Your task to perform on an android device: check battery use Image 0: 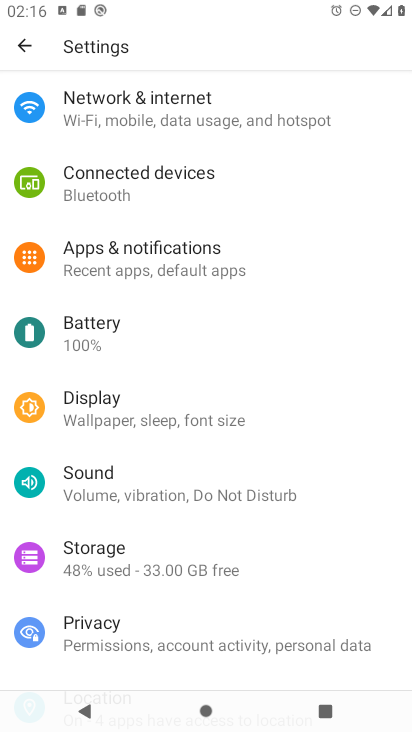
Step 0: click (69, 323)
Your task to perform on an android device: check battery use Image 1: 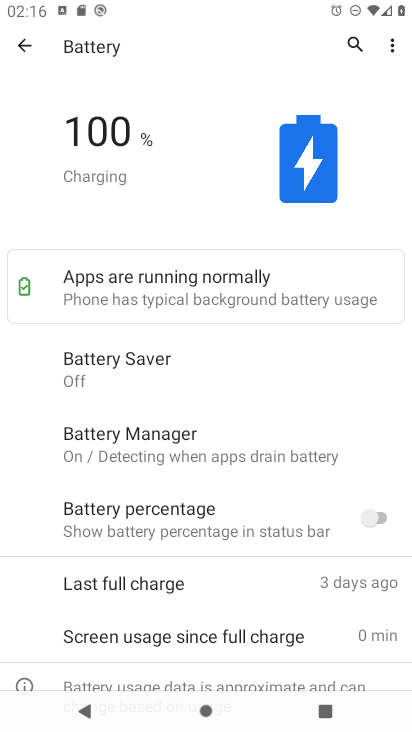
Step 1: click (392, 54)
Your task to perform on an android device: check battery use Image 2: 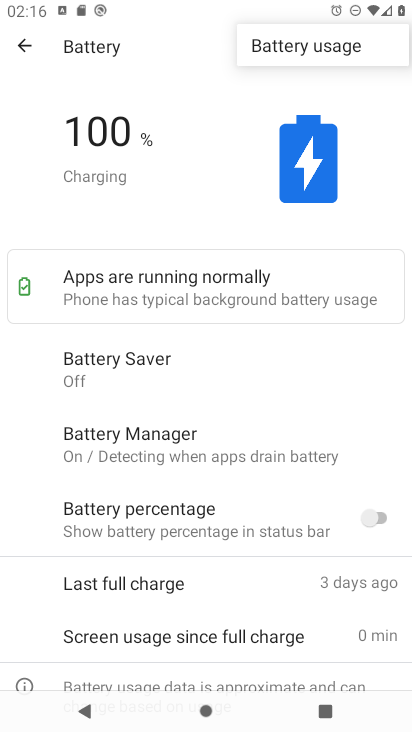
Step 2: click (328, 47)
Your task to perform on an android device: check battery use Image 3: 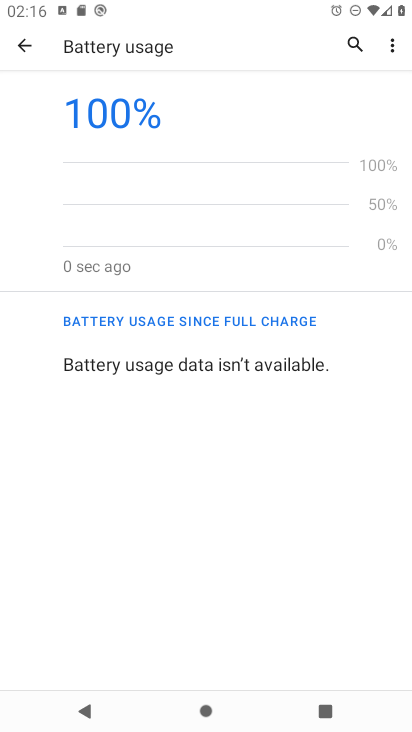
Step 3: task complete